Your task to perform on an android device: Open location settings Image 0: 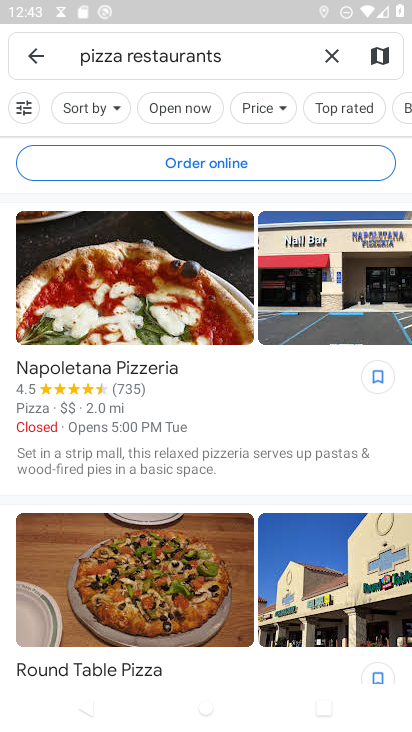
Step 0: press home button
Your task to perform on an android device: Open location settings Image 1: 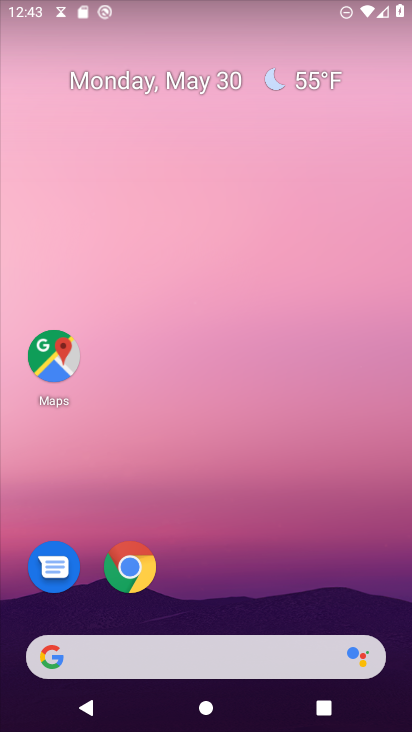
Step 1: drag from (229, 591) to (323, 130)
Your task to perform on an android device: Open location settings Image 2: 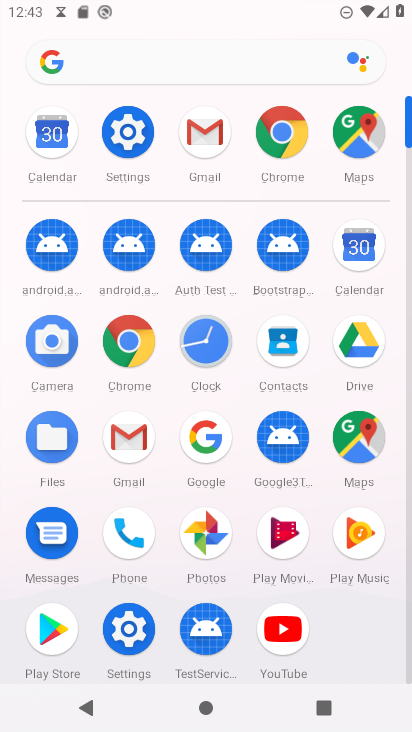
Step 2: click (124, 130)
Your task to perform on an android device: Open location settings Image 3: 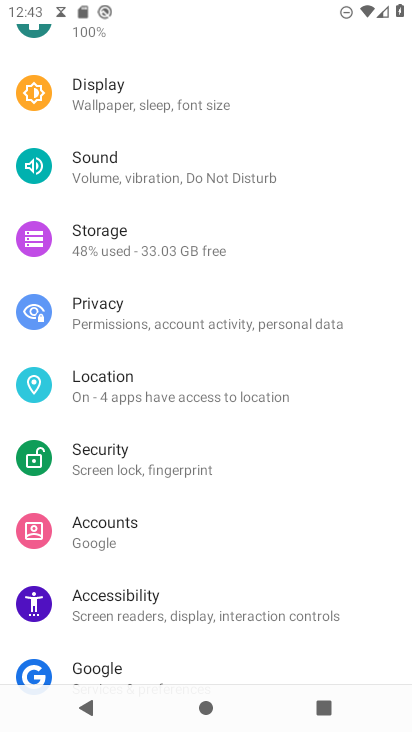
Step 3: drag from (185, 636) to (215, 95)
Your task to perform on an android device: Open location settings Image 4: 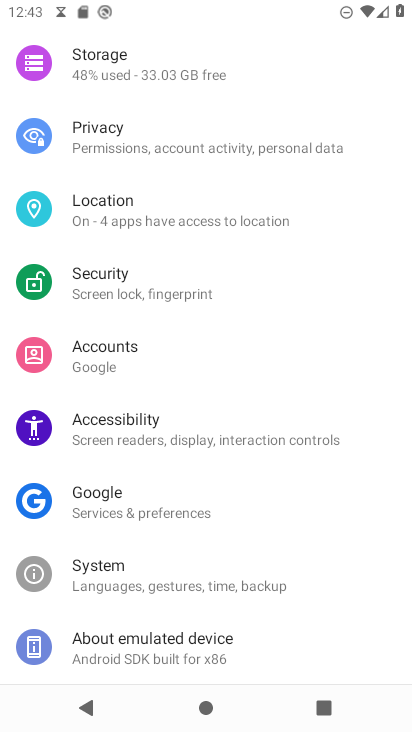
Step 4: click (156, 196)
Your task to perform on an android device: Open location settings Image 5: 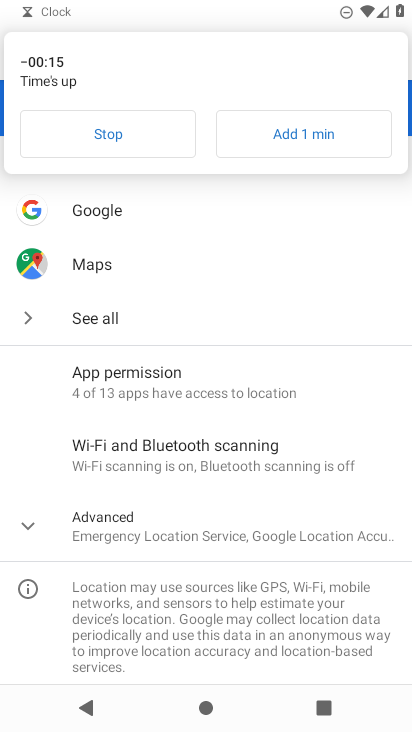
Step 5: click (104, 125)
Your task to perform on an android device: Open location settings Image 6: 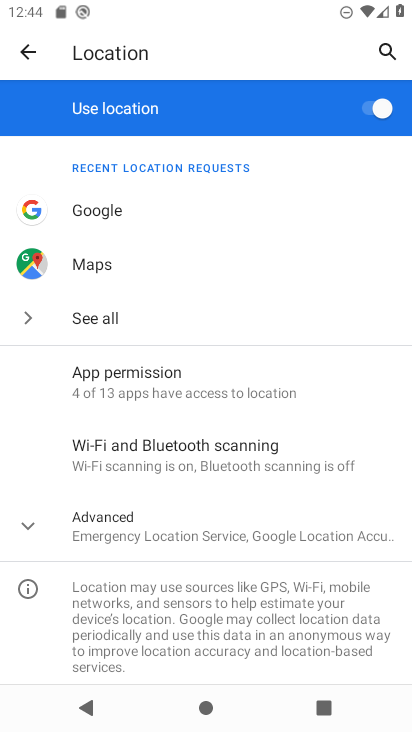
Step 6: click (82, 536)
Your task to perform on an android device: Open location settings Image 7: 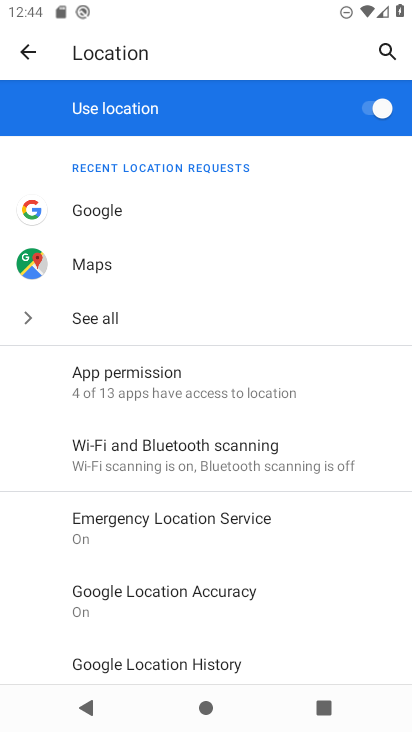
Step 7: task complete